Your task to perform on an android device: turn on showing notifications on the lock screen Image 0: 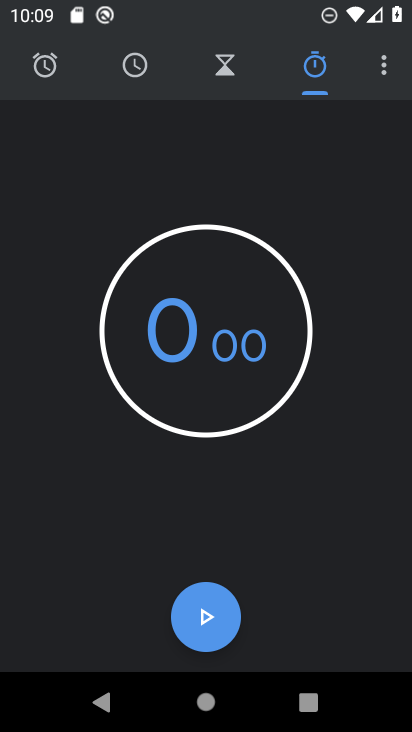
Step 0: press home button
Your task to perform on an android device: turn on showing notifications on the lock screen Image 1: 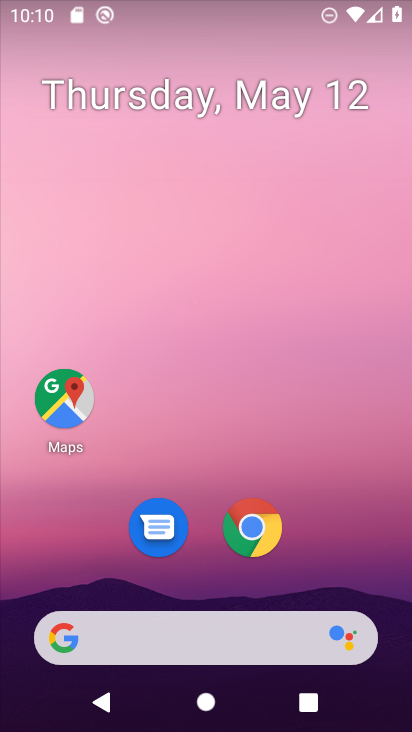
Step 1: drag from (325, 572) to (356, 165)
Your task to perform on an android device: turn on showing notifications on the lock screen Image 2: 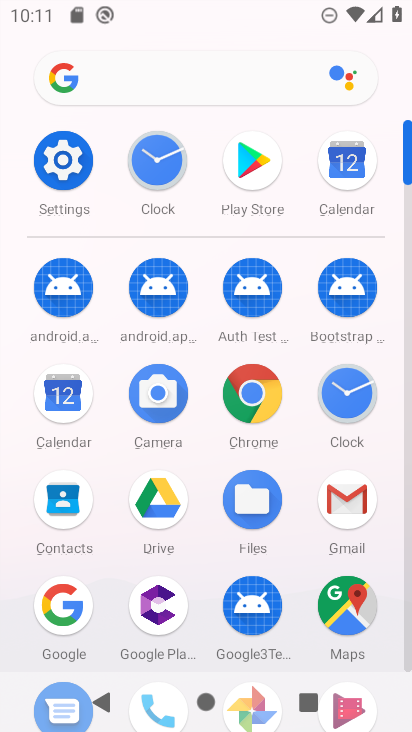
Step 2: click (56, 176)
Your task to perform on an android device: turn on showing notifications on the lock screen Image 3: 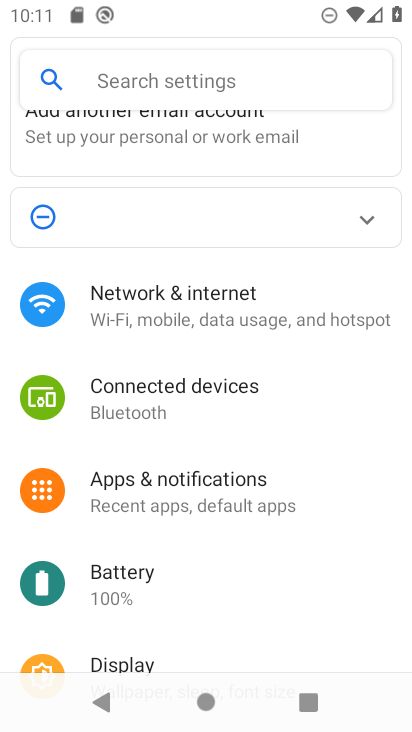
Step 3: click (229, 497)
Your task to perform on an android device: turn on showing notifications on the lock screen Image 4: 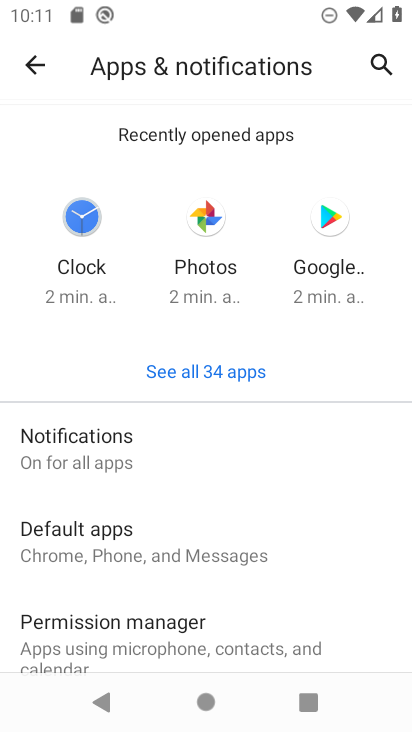
Step 4: drag from (252, 555) to (296, 305)
Your task to perform on an android device: turn on showing notifications on the lock screen Image 5: 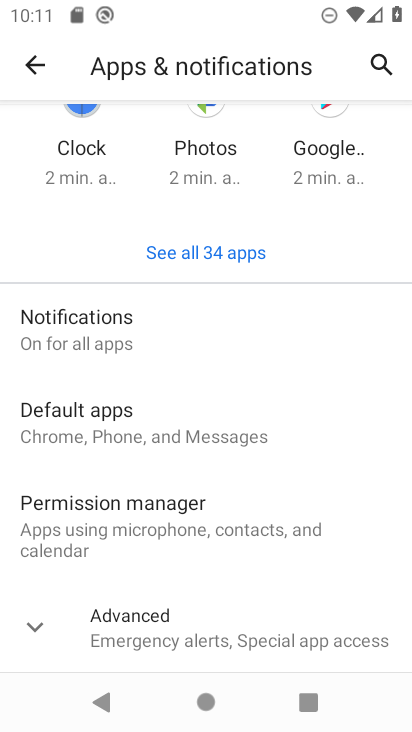
Step 5: click (218, 350)
Your task to perform on an android device: turn on showing notifications on the lock screen Image 6: 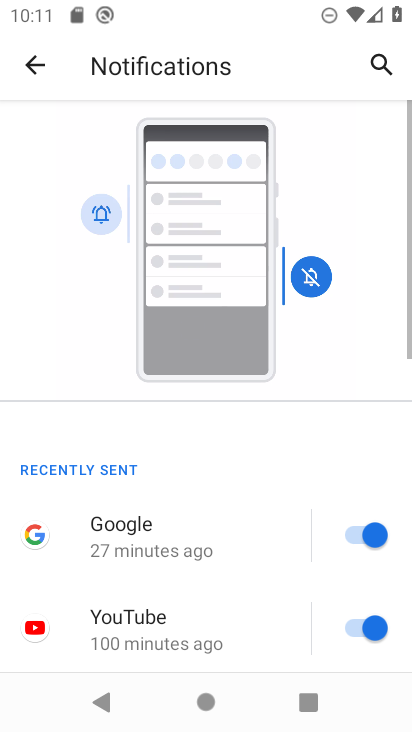
Step 6: drag from (161, 578) to (275, 212)
Your task to perform on an android device: turn on showing notifications on the lock screen Image 7: 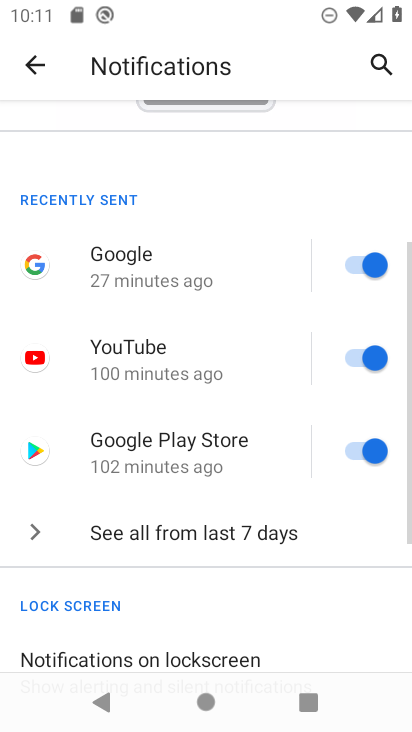
Step 7: drag from (220, 636) to (268, 312)
Your task to perform on an android device: turn on showing notifications on the lock screen Image 8: 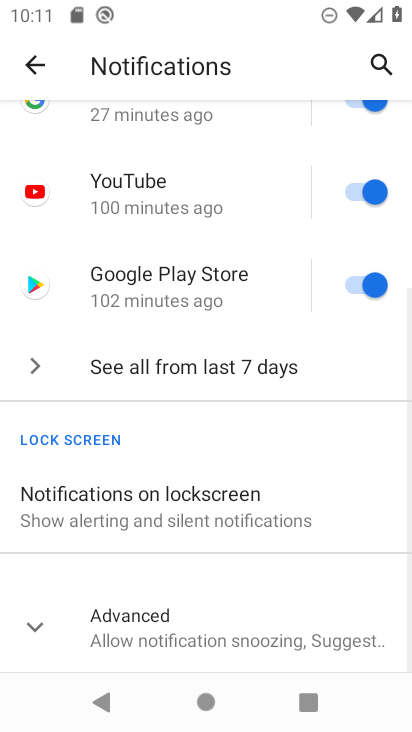
Step 8: click (247, 516)
Your task to perform on an android device: turn on showing notifications on the lock screen Image 9: 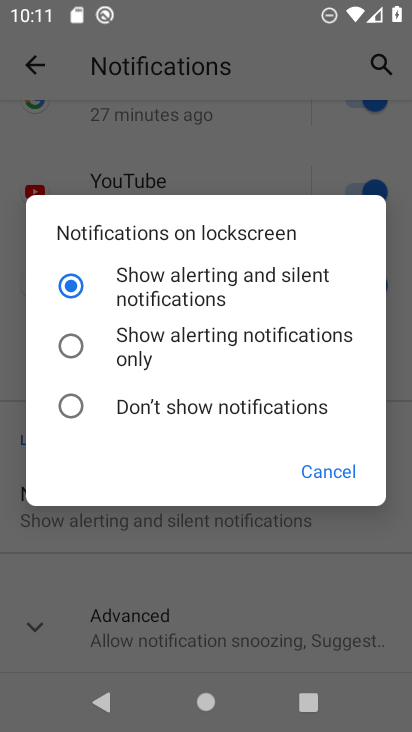
Step 9: click (305, 330)
Your task to perform on an android device: turn on showing notifications on the lock screen Image 10: 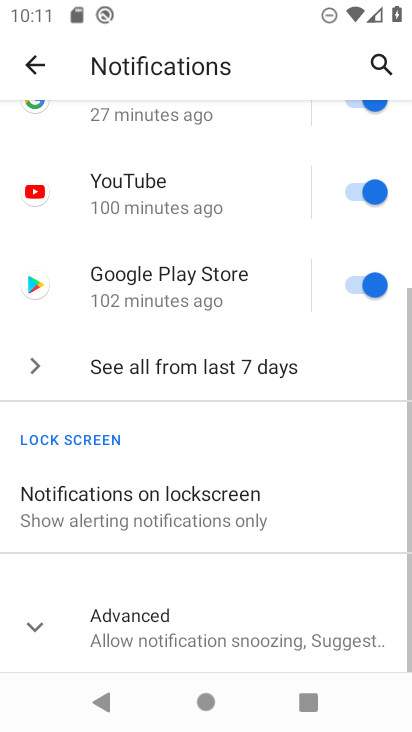
Step 10: task complete